Your task to perform on an android device: set default search engine in the chrome app Image 0: 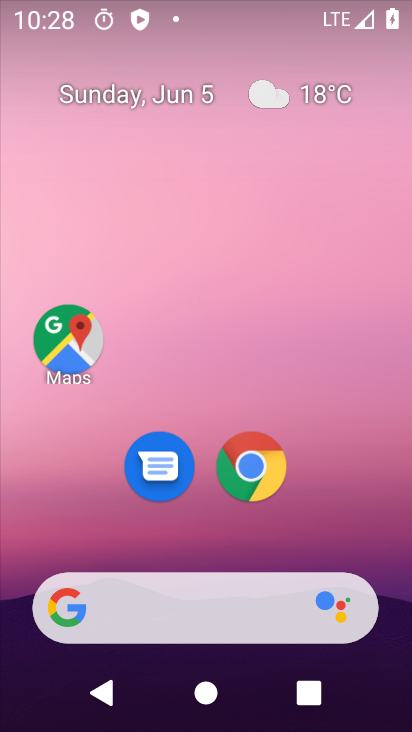
Step 0: click (250, 461)
Your task to perform on an android device: set default search engine in the chrome app Image 1: 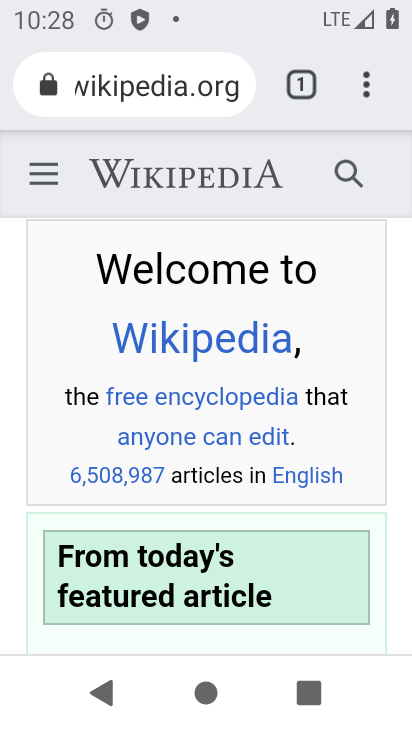
Step 1: click (366, 87)
Your task to perform on an android device: set default search engine in the chrome app Image 2: 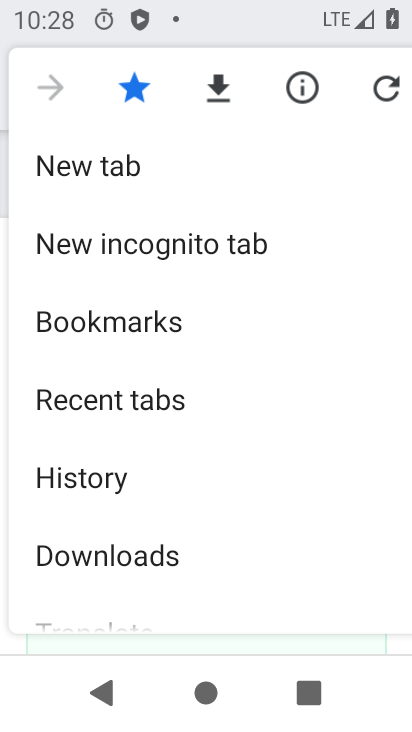
Step 2: drag from (171, 366) to (232, 258)
Your task to perform on an android device: set default search engine in the chrome app Image 3: 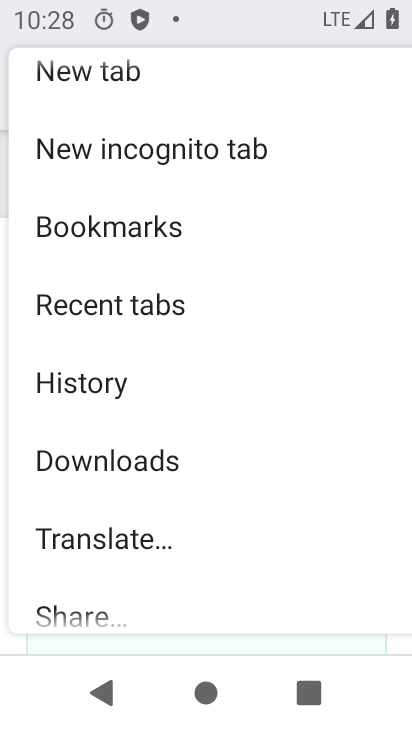
Step 3: drag from (146, 420) to (214, 319)
Your task to perform on an android device: set default search engine in the chrome app Image 4: 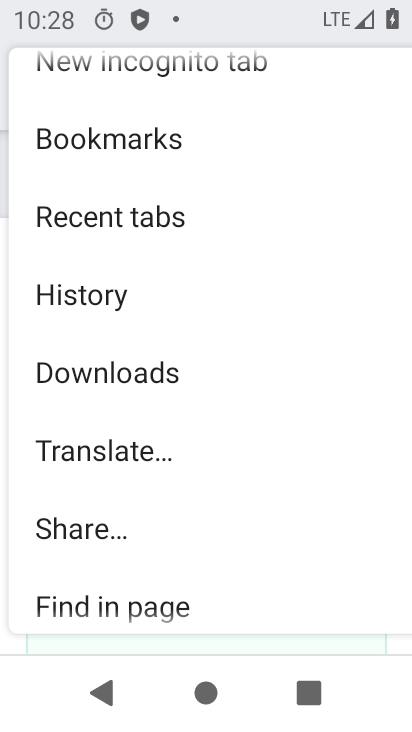
Step 4: drag from (133, 421) to (189, 324)
Your task to perform on an android device: set default search engine in the chrome app Image 5: 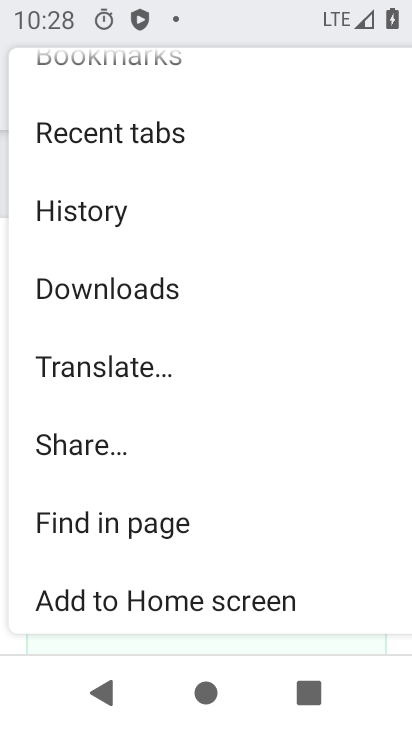
Step 5: drag from (107, 456) to (165, 374)
Your task to perform on an android device: set default search engine in the chrome app Image 6: 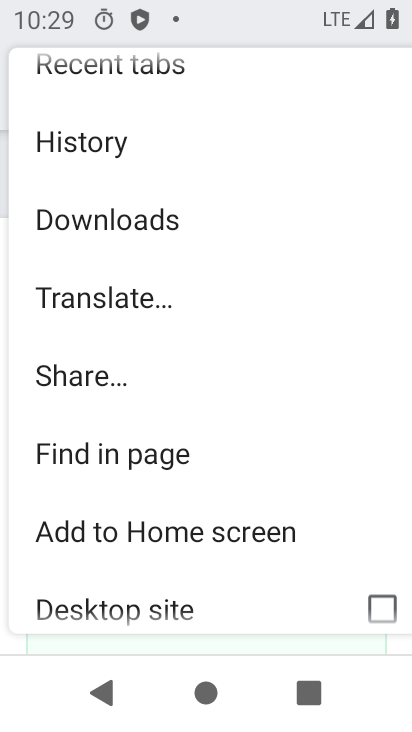
Step 6: drag from (113, 473) to (185, 373)
Your task to perform on an android device: set default search engine in the chrome app Image 7: 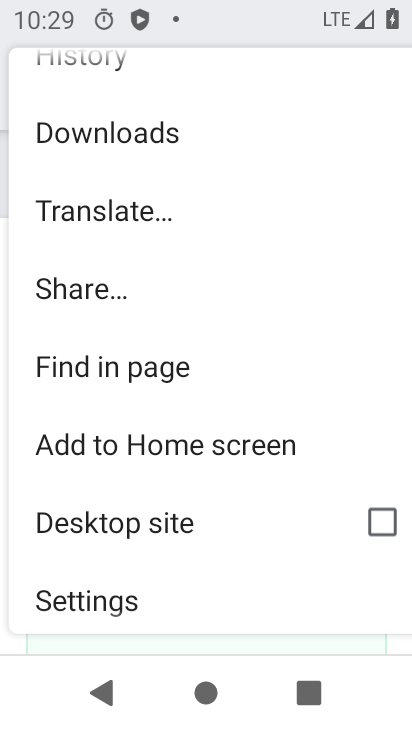
Step 7: drag from (133, 471) to (205, 362)
Your task to perform on an android device: set default search engine in the chrome app Image 8: 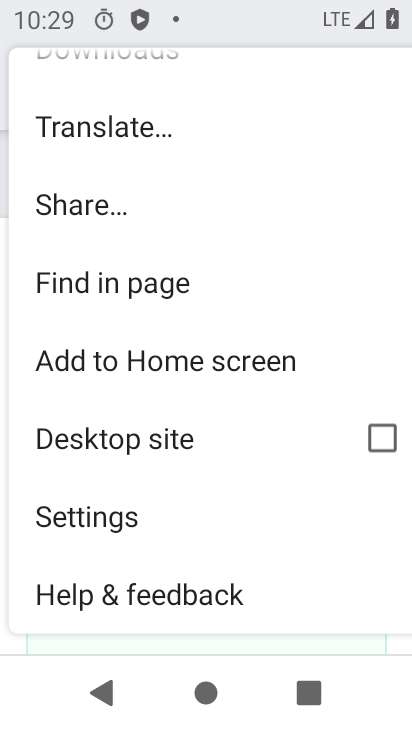
Step 8: click (138, 520)
Your task to perform on an android device: set default search engine in the chrome app Image 9: 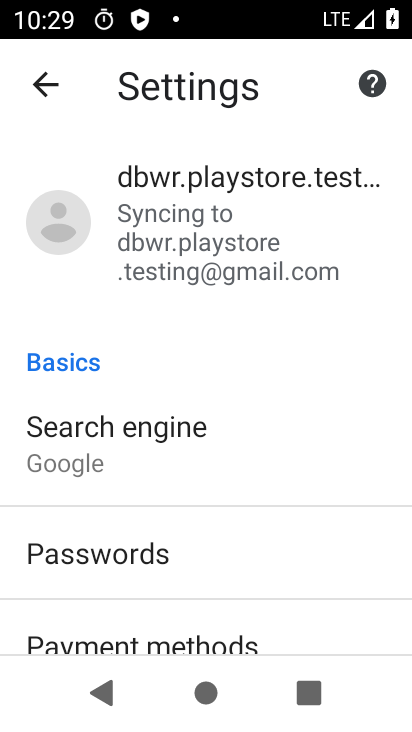
Step 9: click (127, 440)
Your task to perform on an android device: set default search engine in the chrome app Image 10: 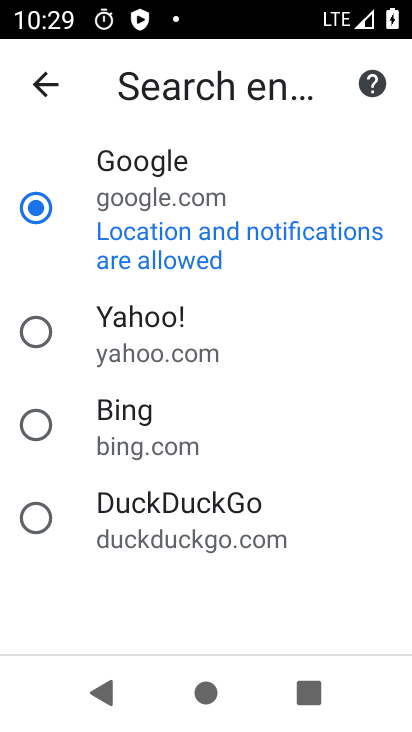
Step 10: click (39, 203)
Your task to perform on an android device: set default search engine in the chrome app Image 11: 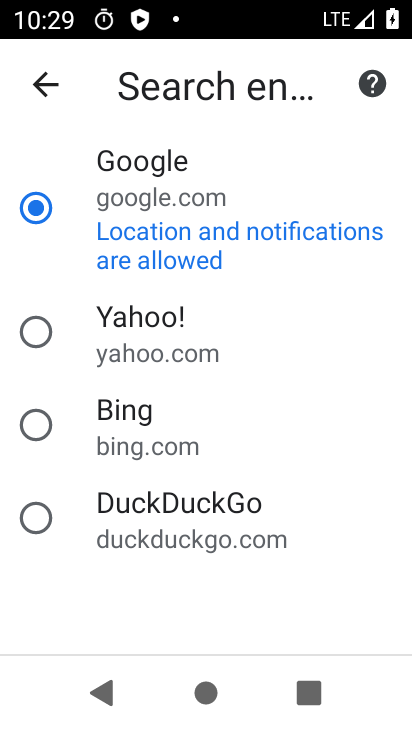
Step 11: task complete